Your task to perform on an android device: clear all cookies in the chrome app Image 0: 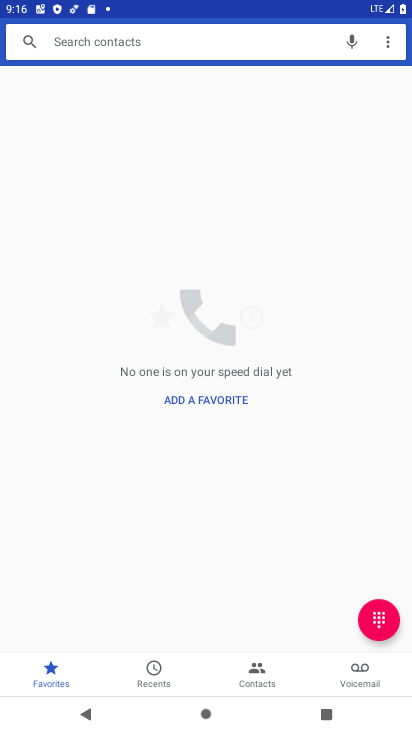
Step 0: press home button
Your task to perform on an android device: clear all cookies in the chrome app Image 1: 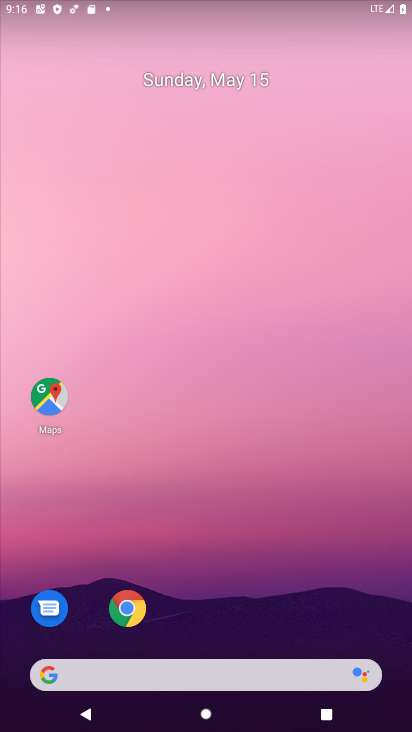
Step 1: drag from (272, 592) to (244, 69)
Your task to perform on an android device: clear all cookies in the chrome app Image 2: 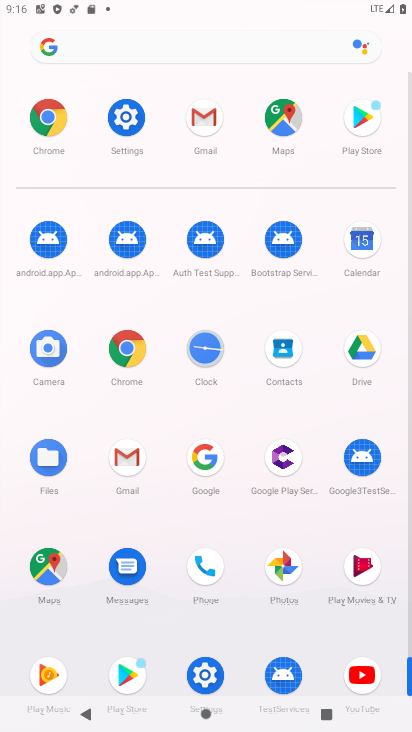
Step 2: click (35, 120)
Your task to perform on an android device: clear all cookies in the chrome app Image 3: 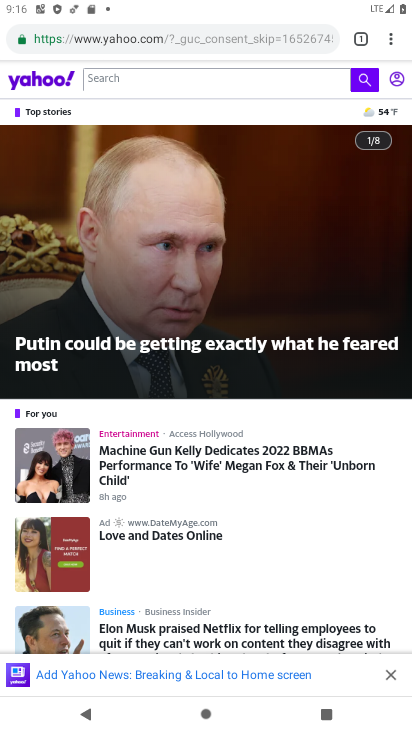
Step 3: click (396, 33)
Your task to perform on an android device: clear all cookies in the chrome app Image 4: 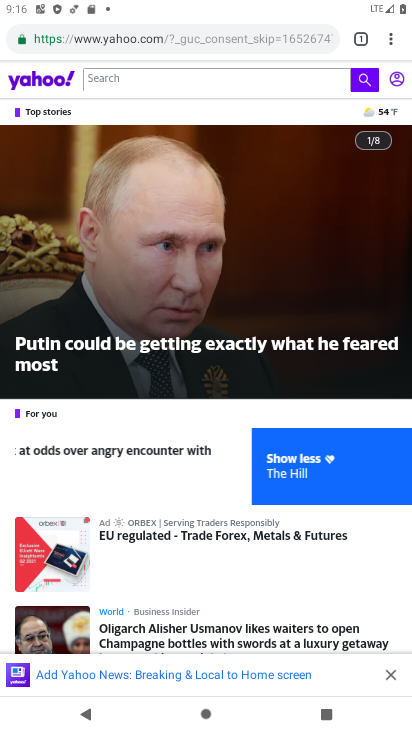
Step 4: drag from (387, 40) to (228, 230)
Your task to perform on an android device: clear all cookies in the chrome app Image 5: 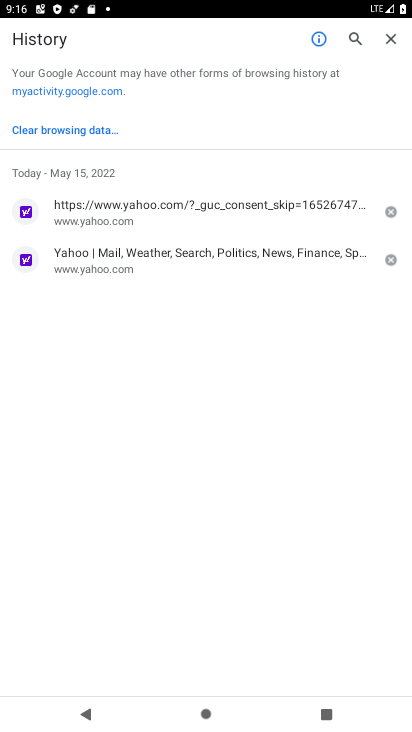
Step 5: click (72, 130)
Your task to perform on an android device: clear all cookies in the chrome app Image 6: 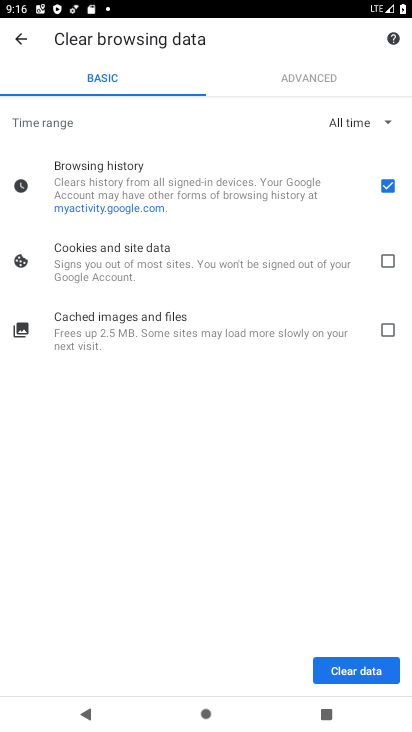
Step 6: click (392, 190)
Your task to perform on an android device: clear all cookies in the chrome app Image 7: 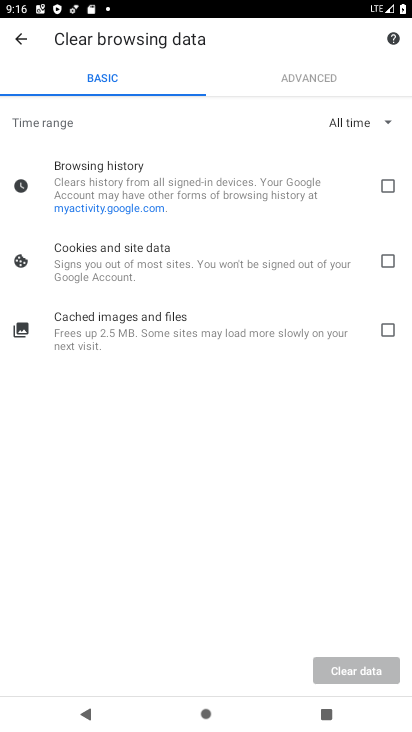
Step 7: click (381, 262)
Your task to perform on an android device: clear all cookies in the chrome app Image 8: 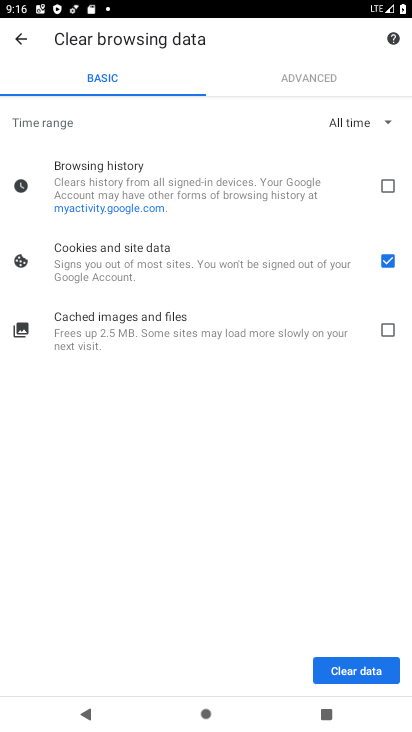
Step 8: click (355, 669)
Your task to perform on an android device: clear all cookies in the chrome app Image 9: 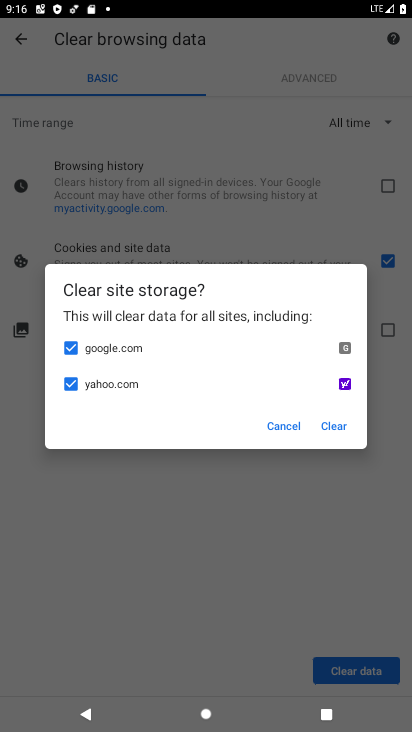
Step 9: click (332, 427)
Your task to perform on an android device: clear all cookies in the chrome app Image 10: 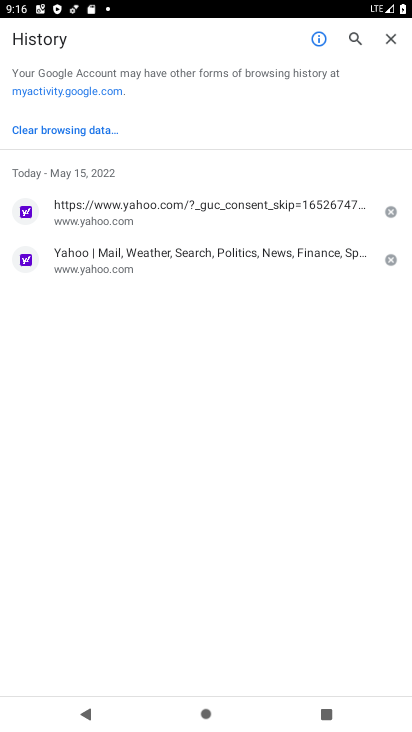
Step 10: task complete